Your task to perform on an android device: star an email in the gmail app Image 0: 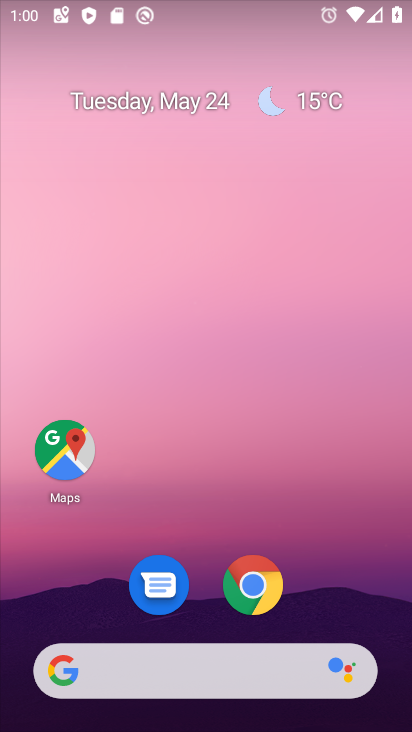
Step 0: drag from (270, 490) to (295, 17)
Your task to perform on an android device: star an email in the gmail app Image 1: 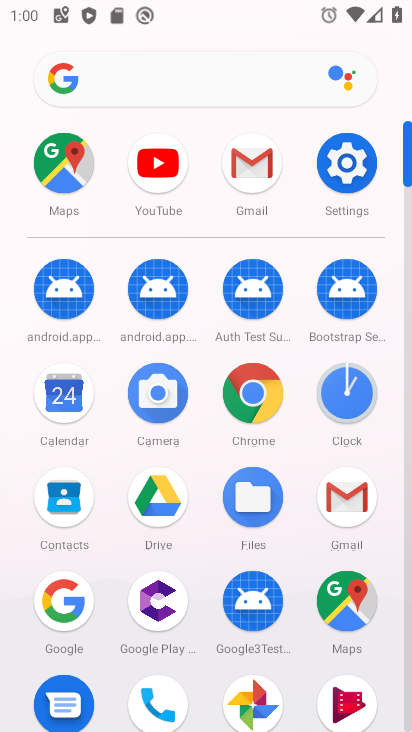
Step 1: click (256, 152)
Your task to perform on an android device: star an email in the gmail app Image 2: 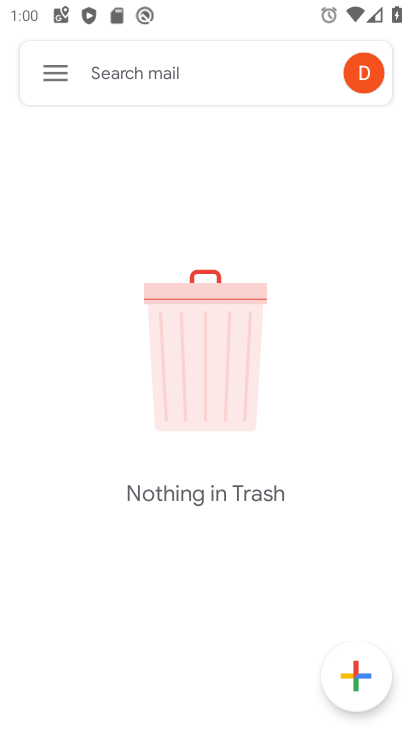
Step 2: click (63, 77)
Your task to perform on an android device: star an email in the gmail app Image 3: 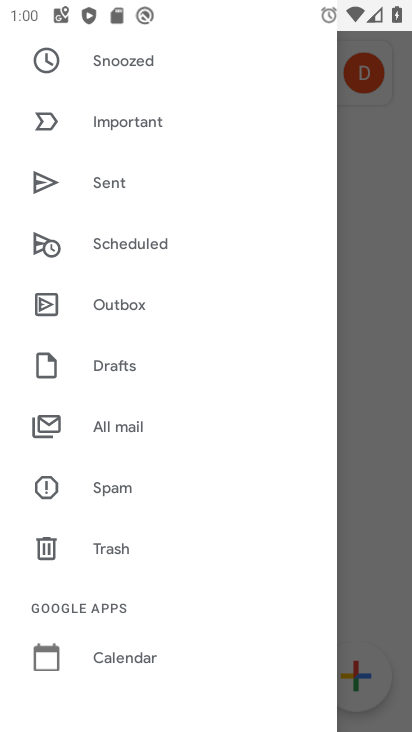
Step 3: click (112, 423)
Your task to perform on an android device: star an email in the gmail app Image 4: 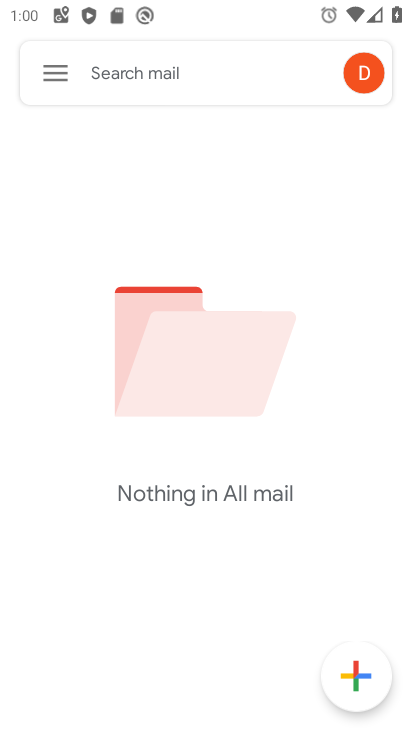
Step 4: task complete